Your task to perform on an android device: Open ESPN.com Image 0: 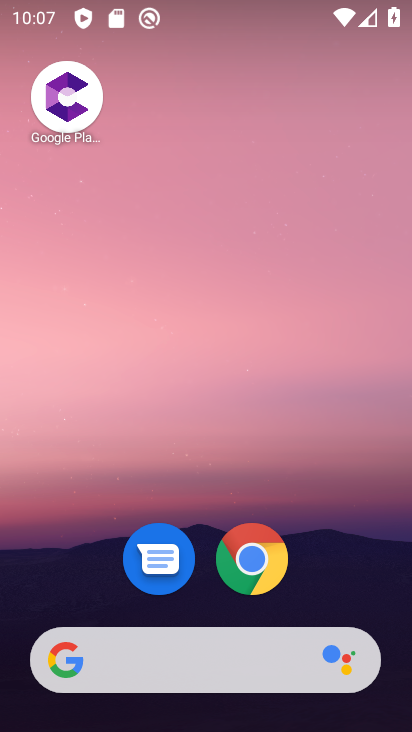
Step 0: drag from (371, 571) to (344, 214)
Your task to perform on an android device: Open ESPN.com Image 1: 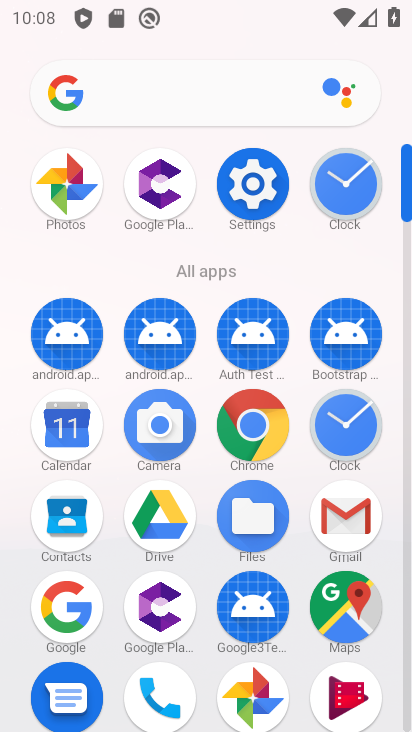
Step 1: click (253, 426)
Your task to perform on an android device: Open ESPN.com Image 2: 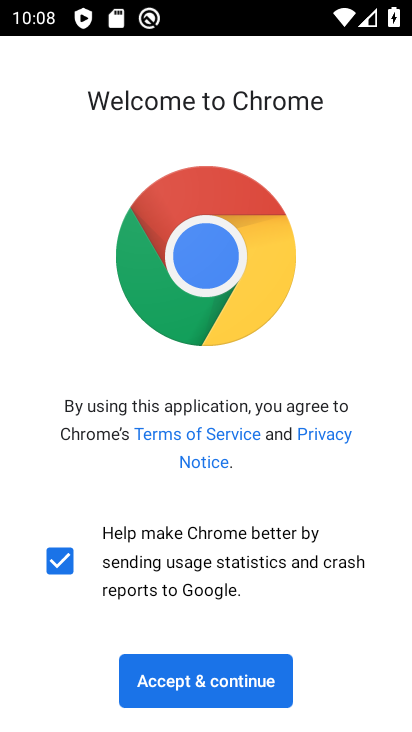
Step 2: click (204, 676)
Your task to perform on an android device: Open ESPN.com Image 3: 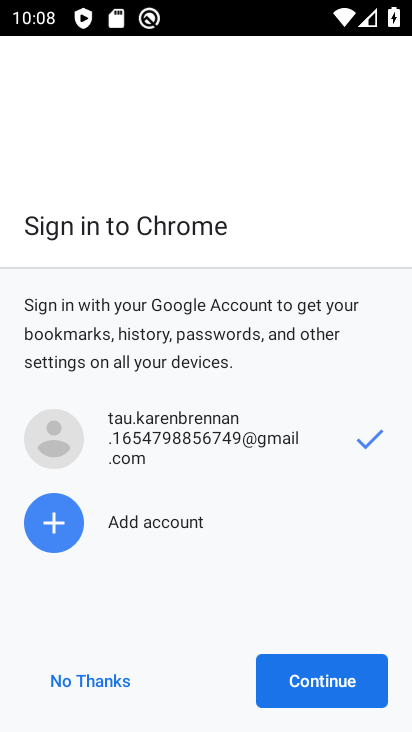
Step 3: click (295, 701)
Your task to perform on an android device: Open ESPN.com Image 4: 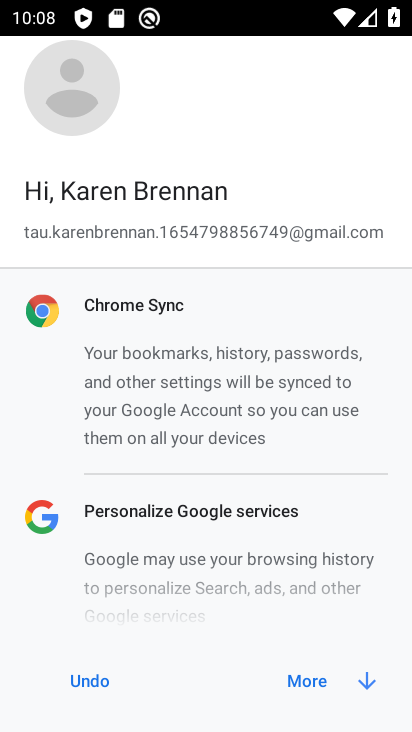
Step 4: click (305, 673)
Your task to perform on an android device: Open ESPN.com Image 5: 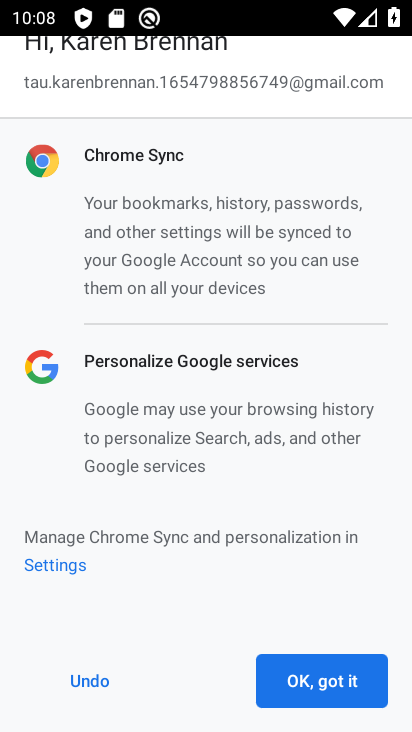
Step 5: click (328, 674)
Your task to perform on an android device: Open ESPN.com Image 6: 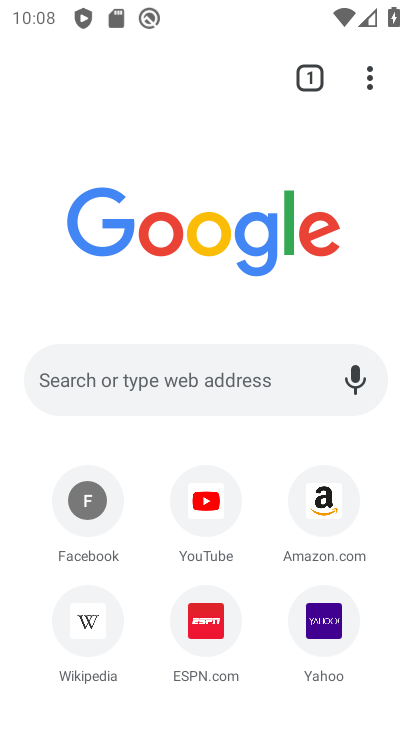
Step 6: click (200, 634)
Your task to perform on an android device: Open ESPN.com Image 7: 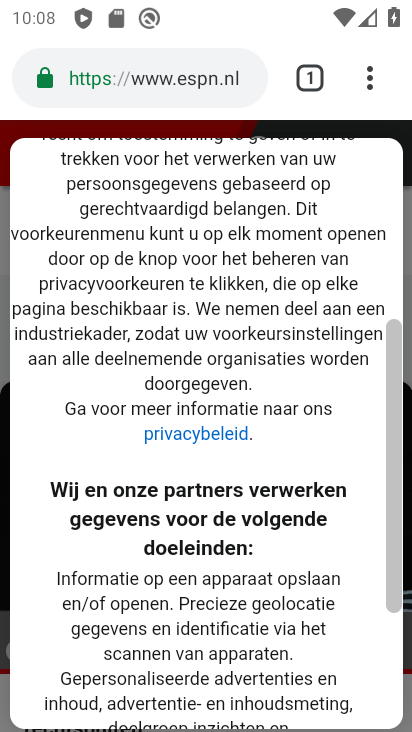
Step 7: task complete